Your task to perform on an android device: toggle notification dots Image 0: 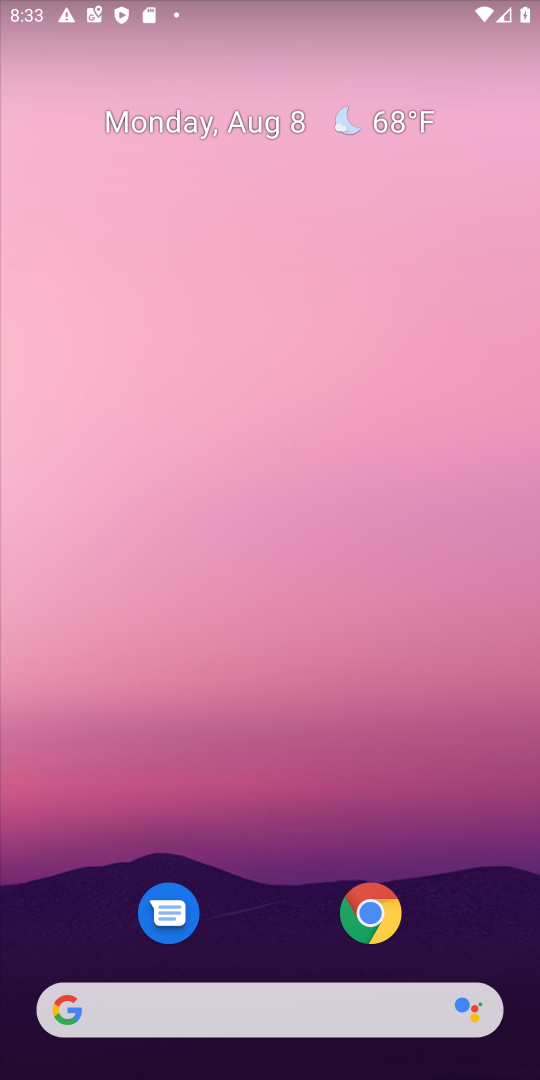
Step 0: drag from (268, 1013) to (504, 73)
Your task to perform on an android device: toggle notification dots Image 1: 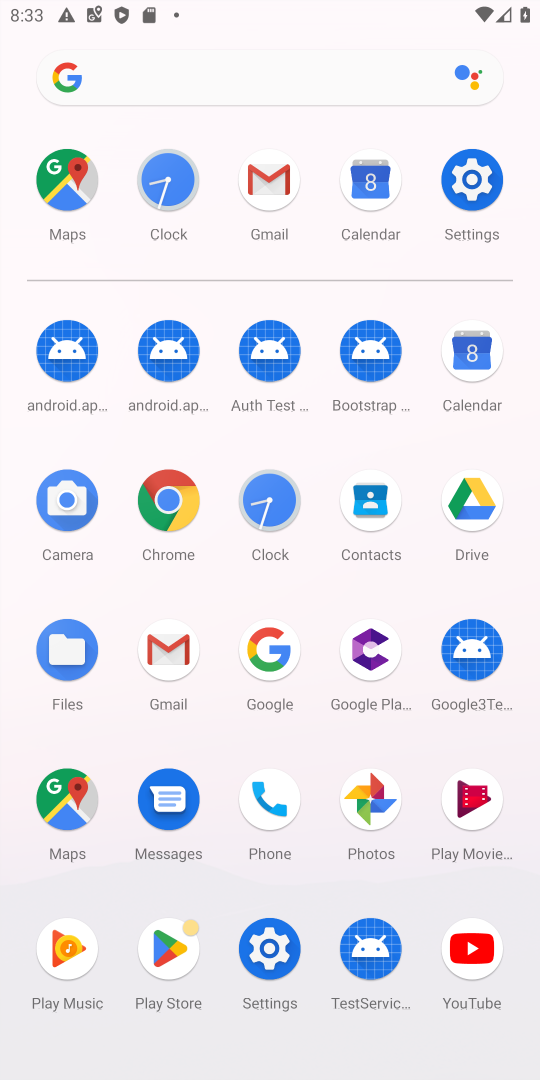
Step 1: click (469, 179)
Your task to perform on an android device: toggle notification dots Image 2: 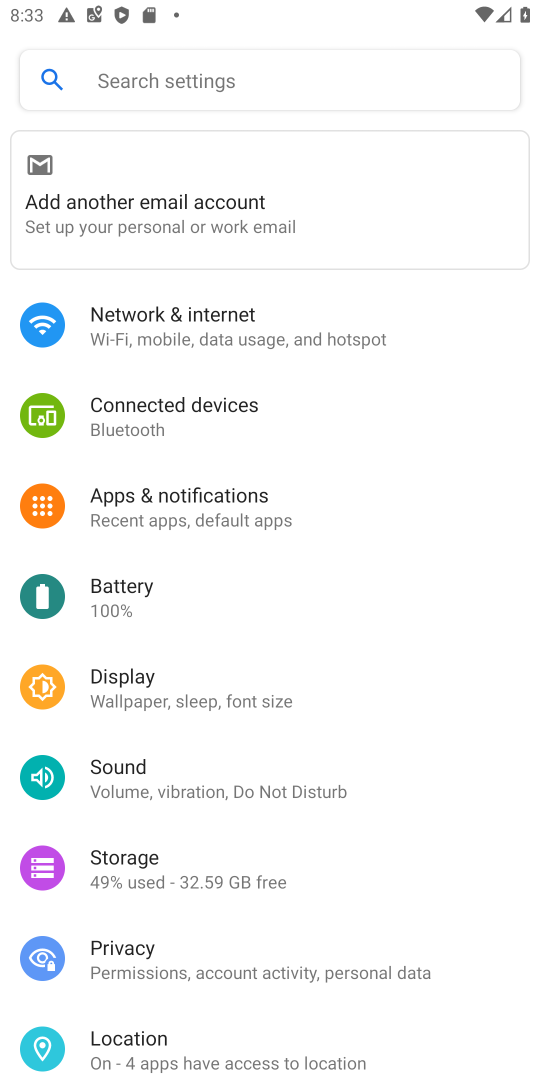
Step 2: click (173, 500)
Your task to perform on an android device: toggle notification dots Image 3: 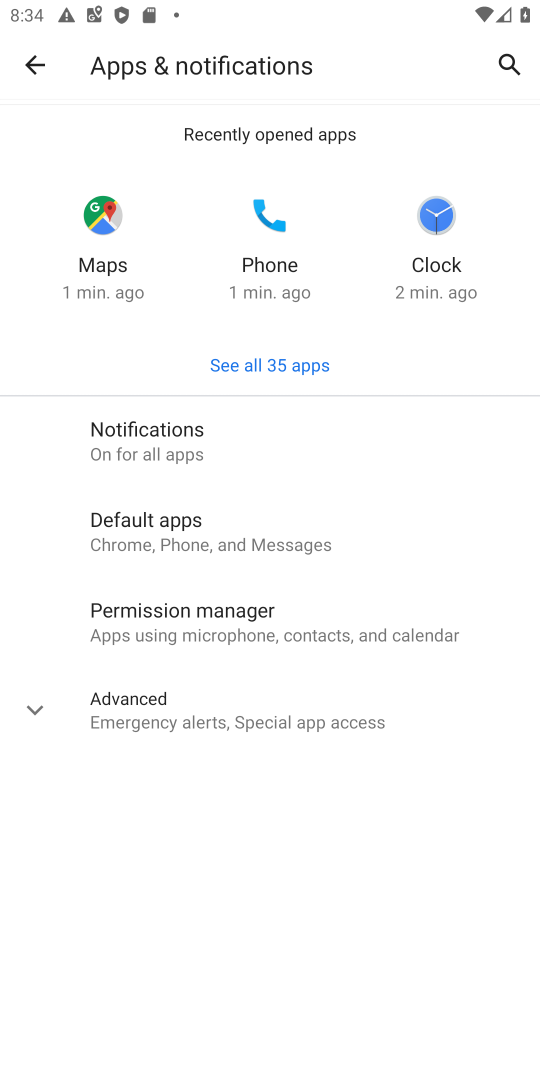
Step 3: click (141, 438)
Your task to perform on an android device: toggle notification dots Image 4: 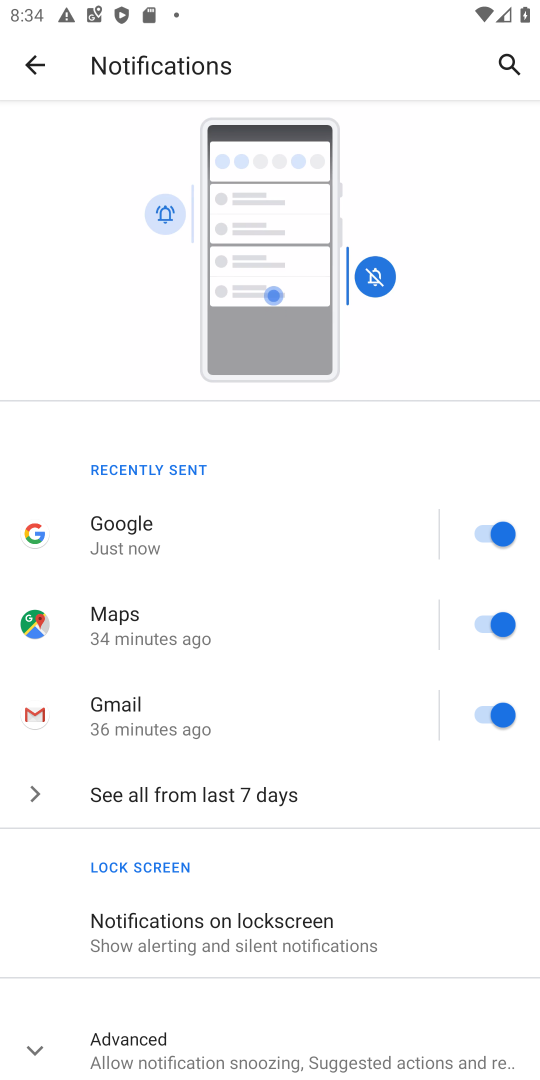
Step 4: drag from (269, 848) to (340, 694)
Your task to perform on an android device: toggle notification dots Image 5: 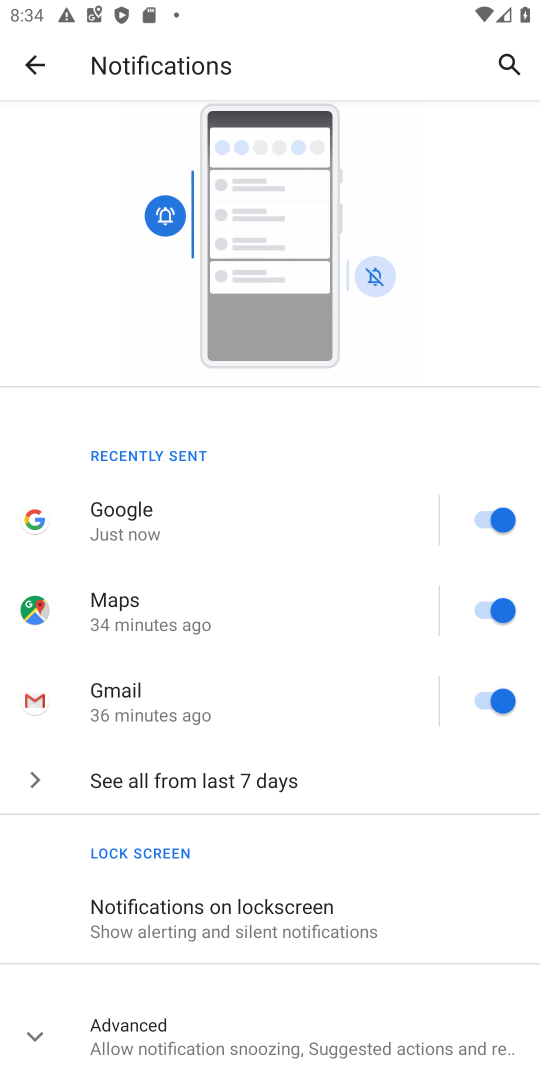
Step 5: drag from (315, 836) to (348, 733)
Your task to perform on an android device: toggle notification dots Image 6: 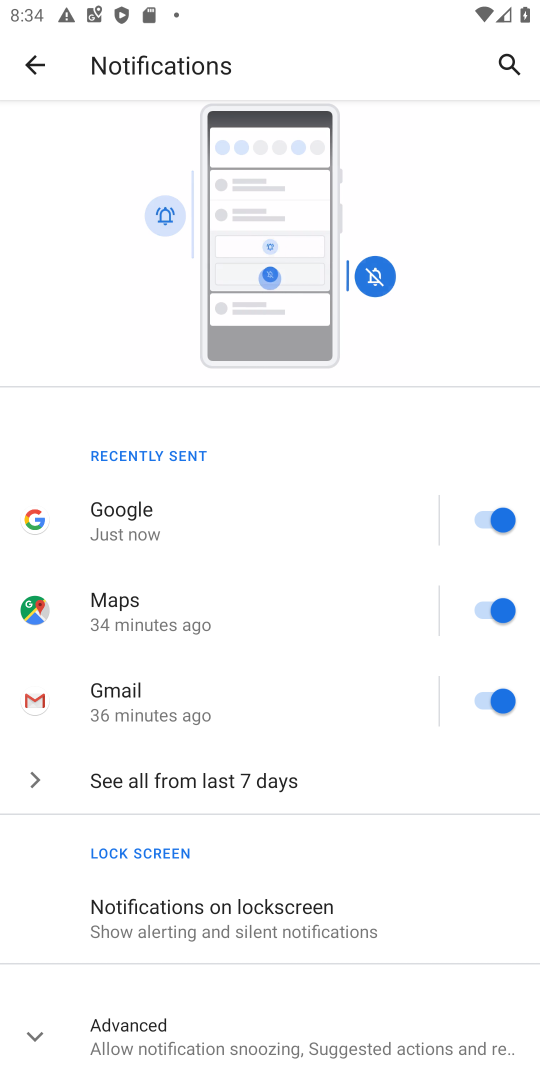
Step 6: drag from (265, 991) to (398, 538)
Your task to perform on an android device: toggle notification dots Image 7: 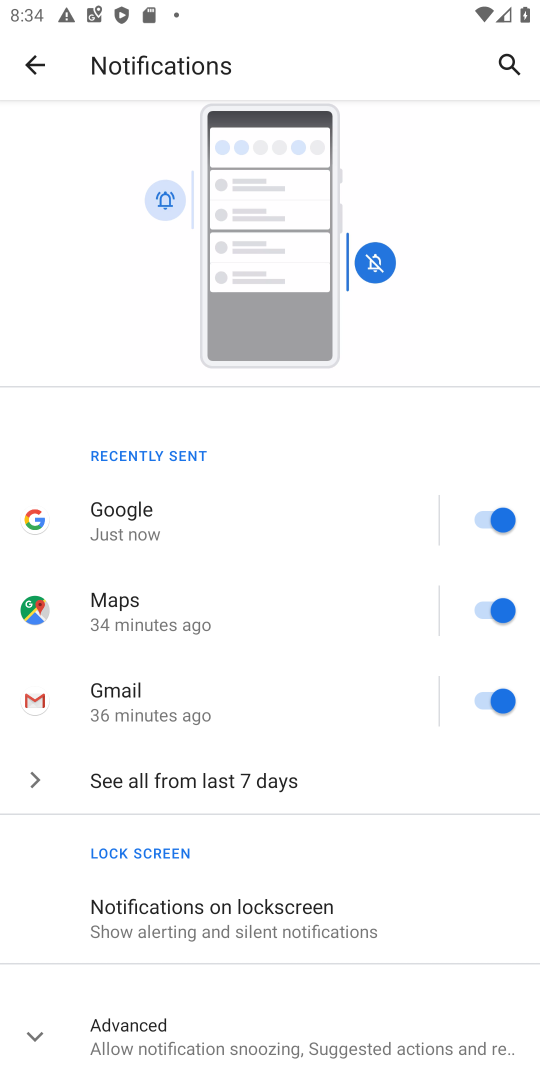
Step 7: click (221, 1041)
Your task to perform on an android device: toggle notification dots Image 8: 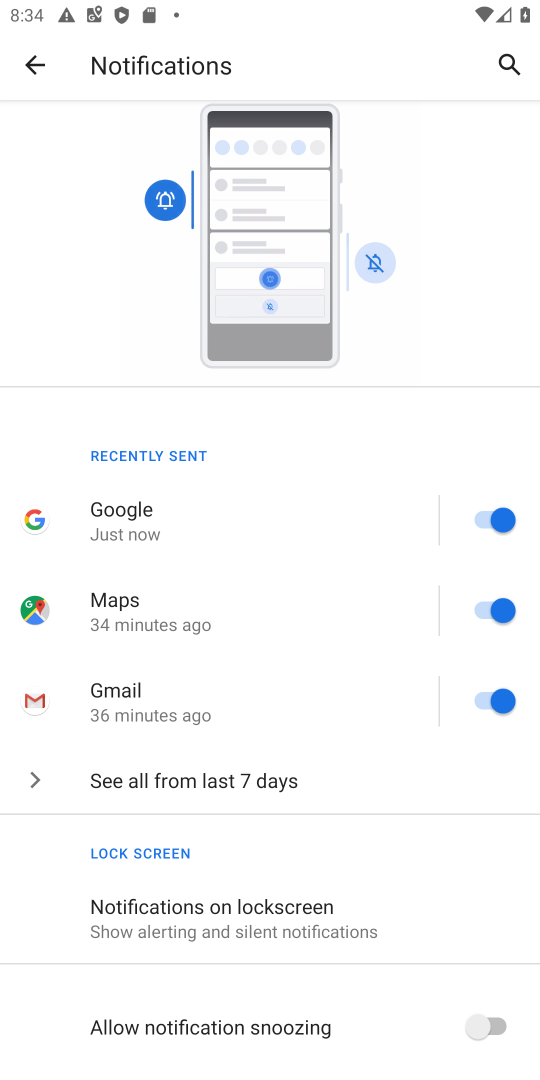
Step 8: drag from (237, 967) to (396, 545)
Your task to perform on an android device: toggle notification dots Image 9: 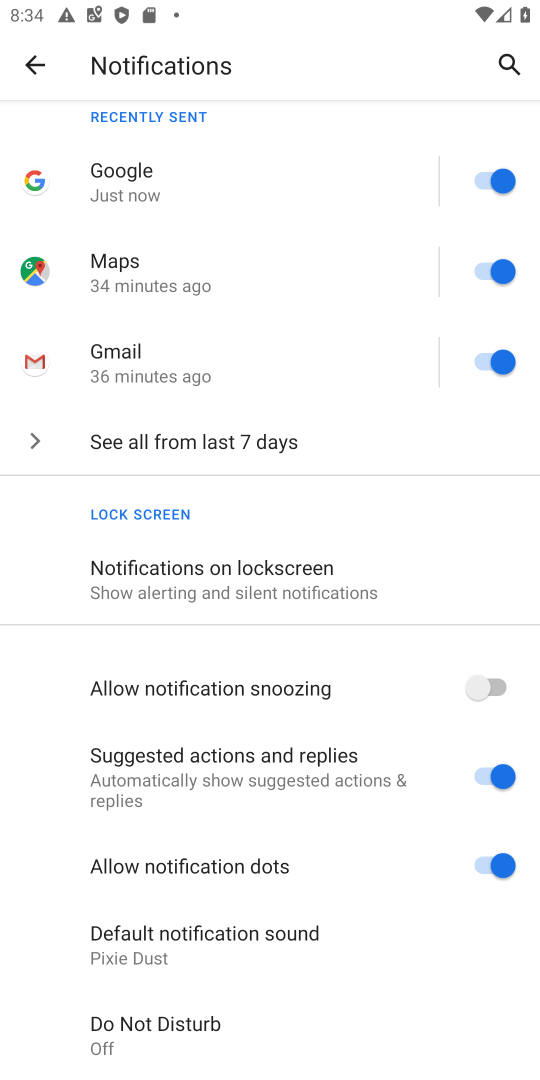
Step 9: click (494, 848)
Your task to perform on an android device: toggle notification dots Image 10: 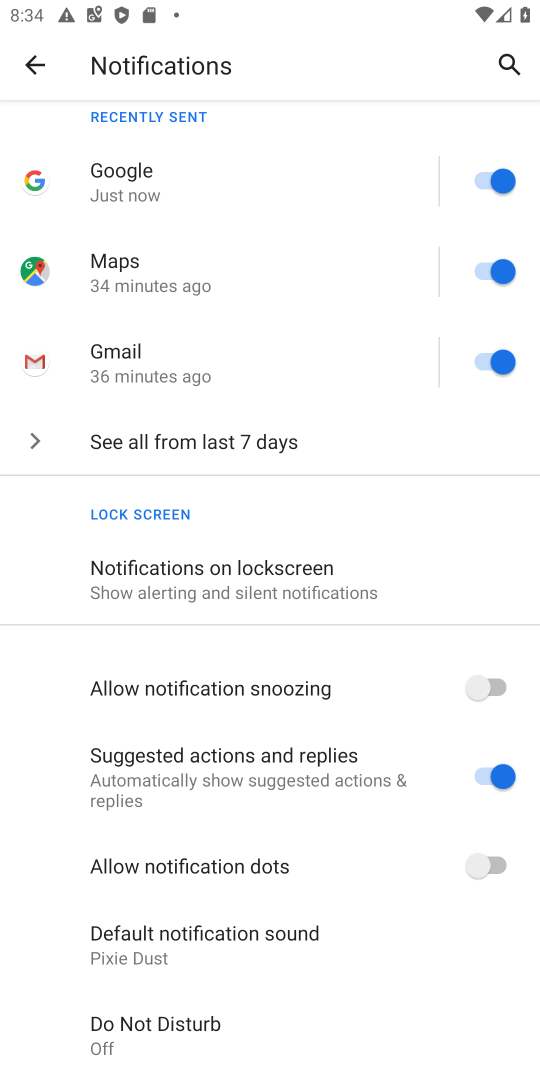
Step 10: task complete